Your task to perform on an android device: See recent photos Image 0: 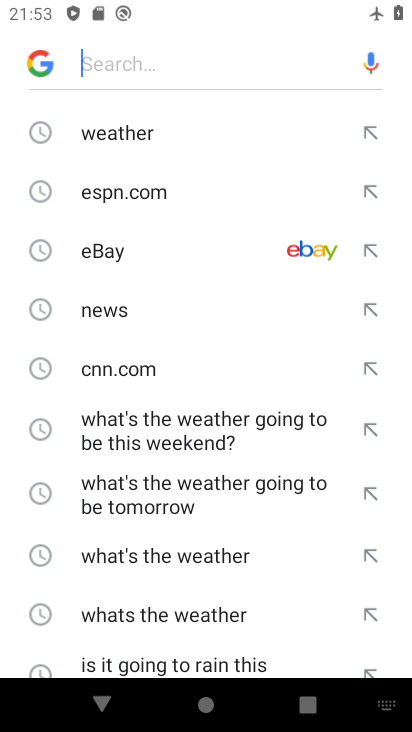
Step 0: press home button
Your task to perform on an android device: See recent photos Image 1: 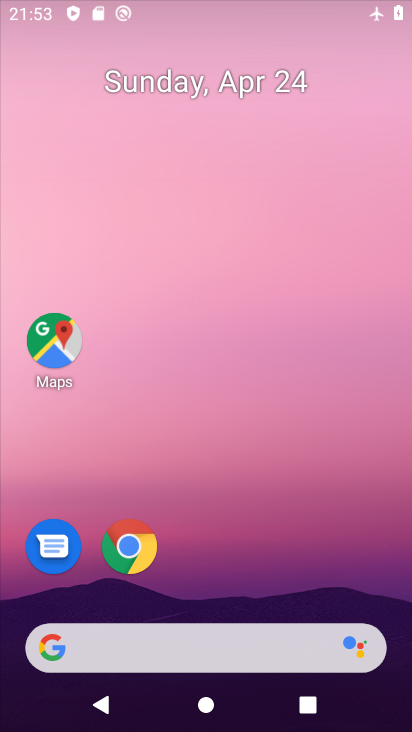
Step 1: drag from (224, 544) to (244, 206)
Your task to perform on an android device: See recent photos Image 2: 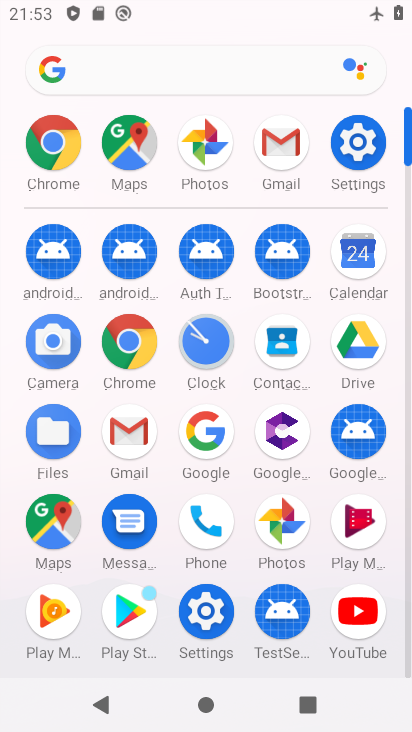
Step 2: click (272, 513)
Your task to perform on an android device: See recent photos Image 3: 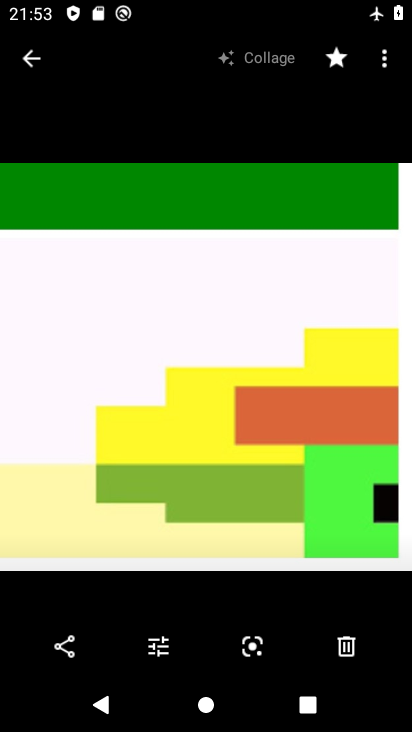
Step 3: task complete